Your task to perform on an android device: turn on improve location accuracy Image 0: 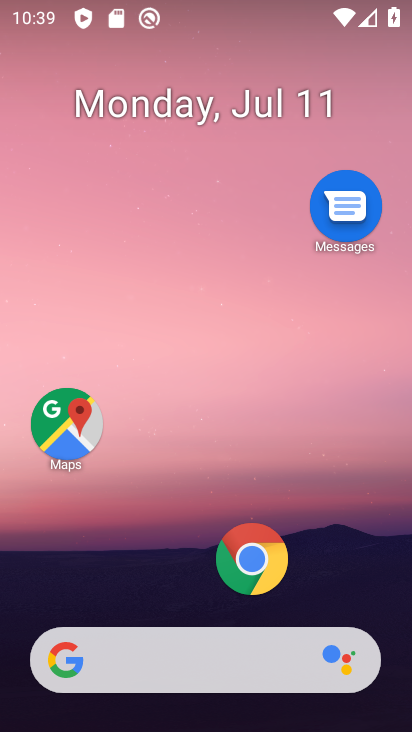
Step 0: drag from (361, 579) to (376, 120)
Your task to perform on an android device: turn on improve location accuracy Image 1: 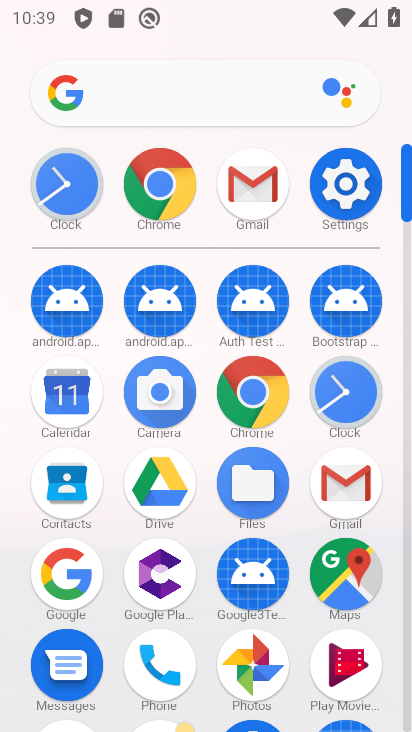
Step 1: click (356, 192)
Your task to perform on an android device: turn on improve location accuracy Image 2: 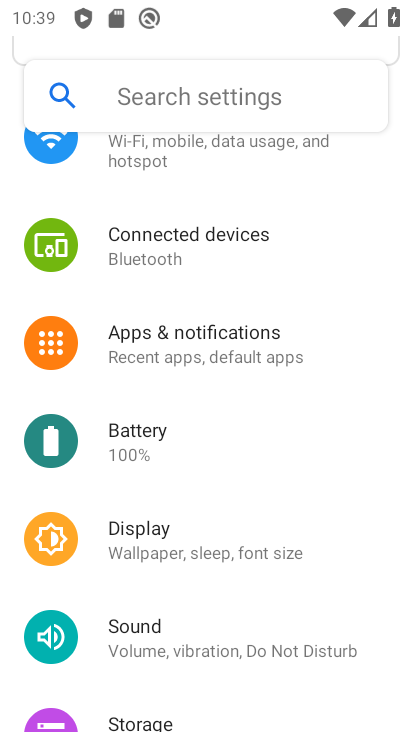
Step 2: drag from (347, 464) to (363, 279)
Your task to perform on an android device: turn on improve location accuracy Image 3: 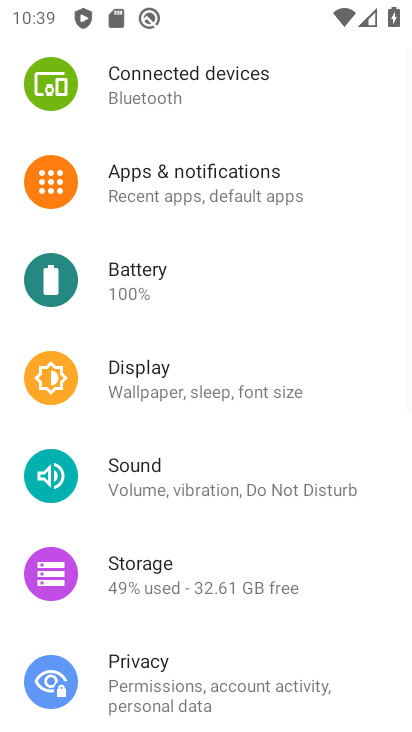
Step 3: drag from (357, 433) to (354, 299)
Your task to perform on an android device: turn on improve location accuracy Image 4: 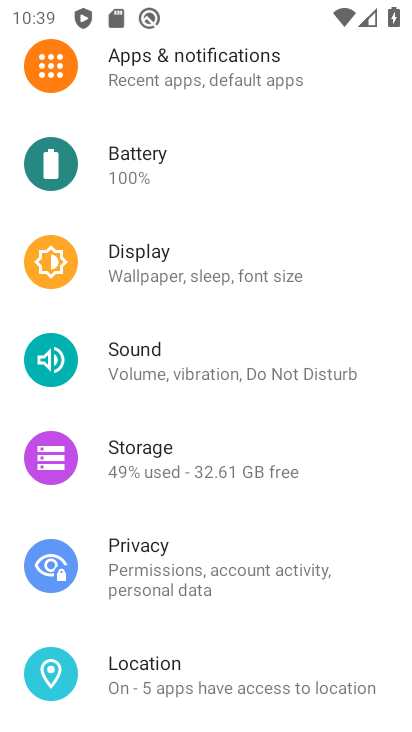
Step 4: drag from (345, 492) to (351, 346)
Your task to perform on an android device: turn on improve location accuracy Image 5: 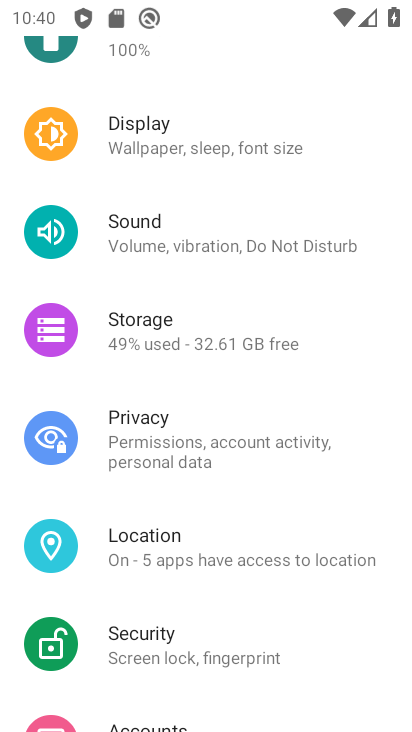
Step 5: drag from (359, 487) to (354, 332)
Your task to perform on an android device: turn on improve location accuracy Image 6: 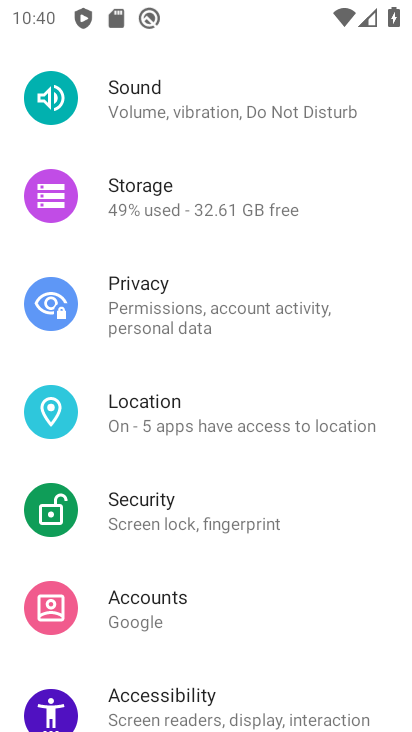
Step 6: drag from (342, 513) to (340, 312)
Your task to perform on an android device: turn on improve location accuracy Image 7: 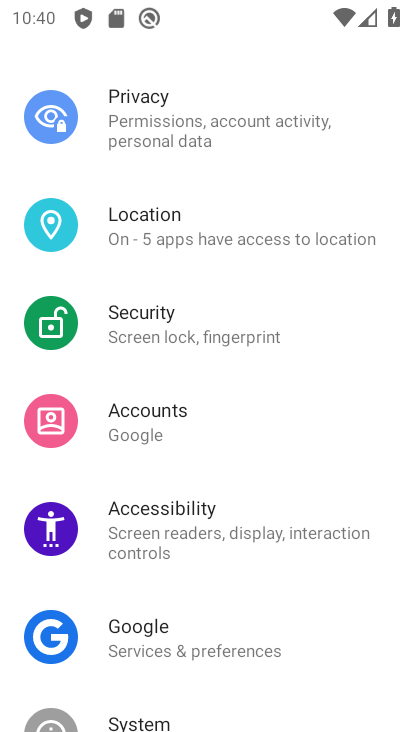
Step 7: drag from (333, 462) to (340, 305)
Your task to perform on an android device: turn on improve location accuracy Image 8: 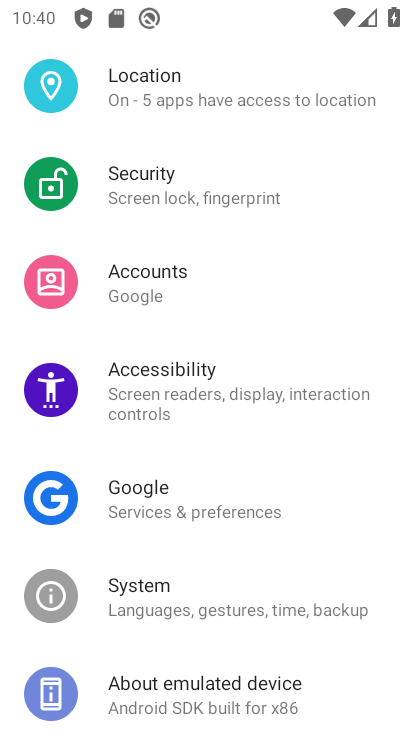
Step 8: drag from (349, 477) to (345, 367)
Your task to perform on an android device: turn on improve location accuracy Image 9: 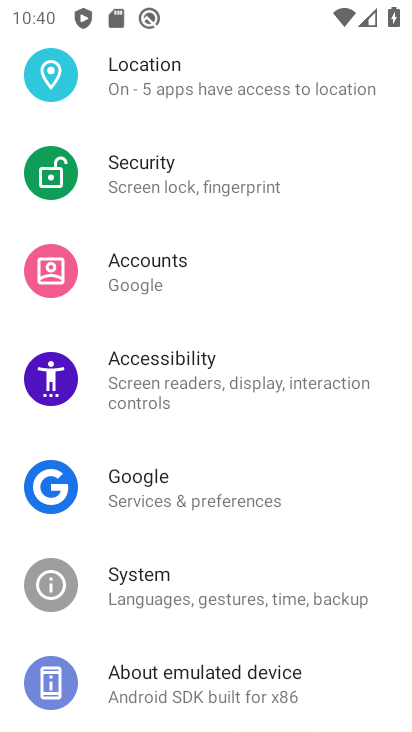
Step 9: drag from (339, 304) to (344, 469)
Your task to perform on an android device: turn on improve location accuracy Image 10: 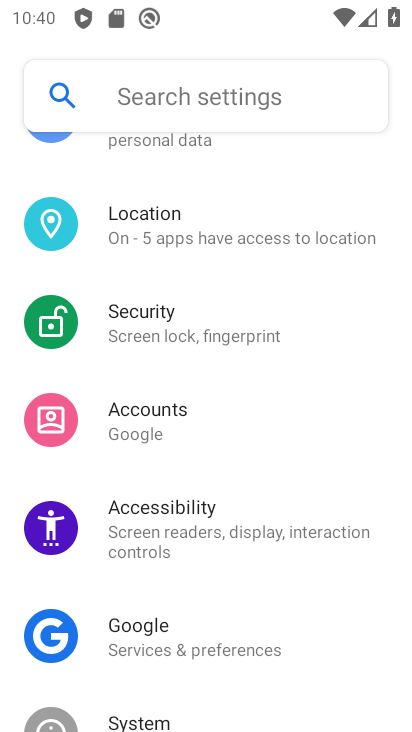
Step 10: drag from (335, 314) to (332, 491)
Your task to perform on an android device: turn on improve location accuracy Image 11: 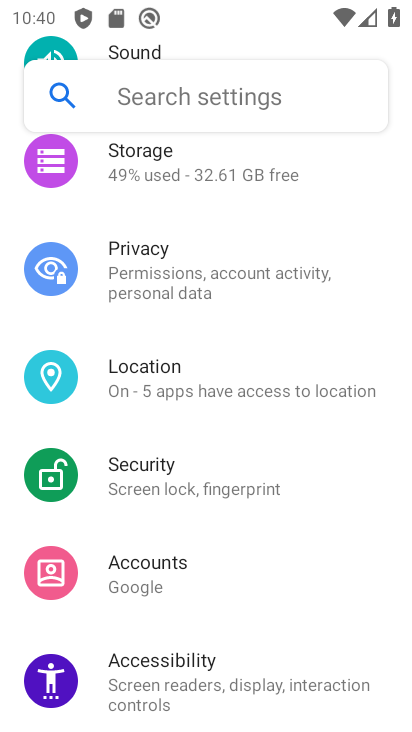
Step 11: drag from (342, 312) to (332, 431)
Your task to perform on an android device: turn on improve location accuracy Image 12: 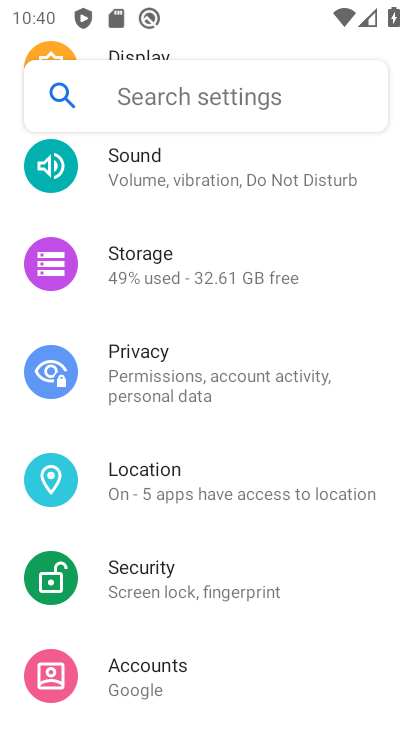
Step 12: click (324, 481)
Your task to perform on an android device: turn on improve location accuracy Image 13: 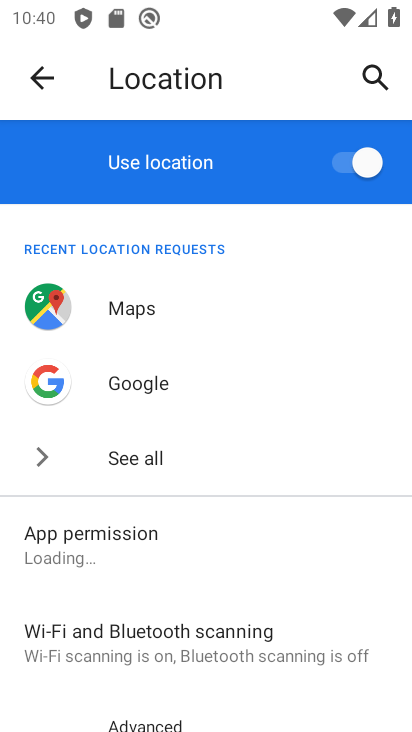
Step 13: drag from (321, 523) to (325, 436)
Your task to perform on an android device: turn on improve location accuracy Image 14: 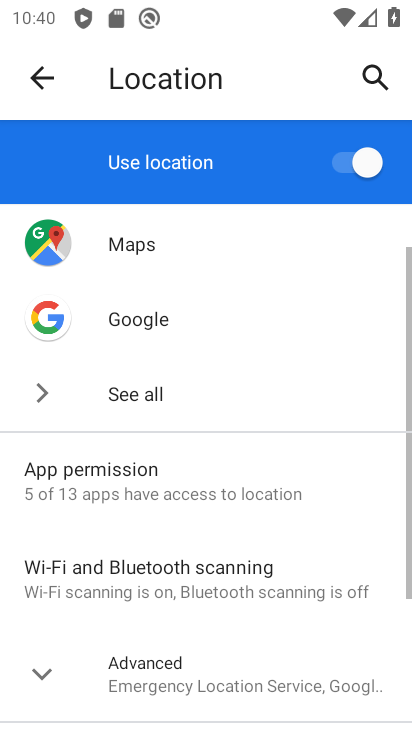
Step 14: drag from (324, 516) to (323, 394)
Your task to perform on an android device: turn on improve location accuracy Image 15: 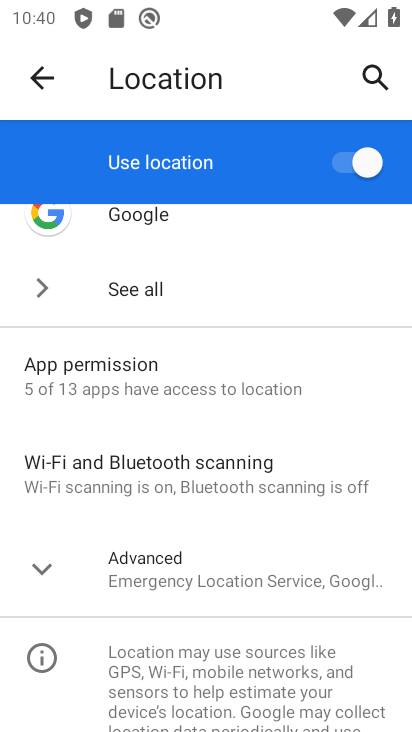
Step 15: click (318, 574)
Your task to perform on an android device: turn on improve location accuracy Image 16: 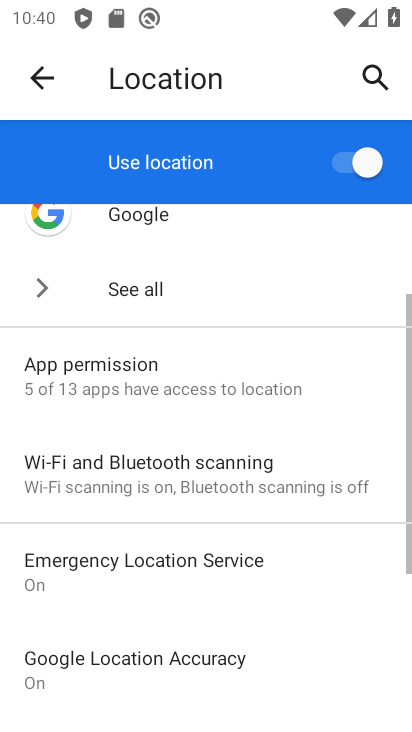
Step 16: drag from (319, 580) to (315, 461)
Your task to perform on an android device: turn on improve location accuracy Image 17: 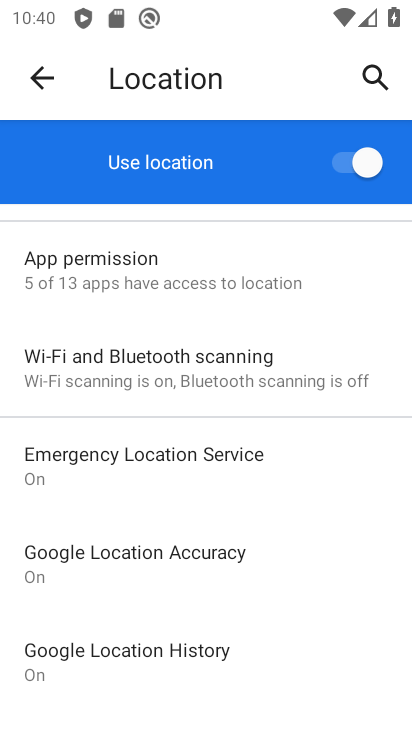
Step 17: click (295, 562)
Your task to perform on an android device: turn on improve location accuracy Image 18: 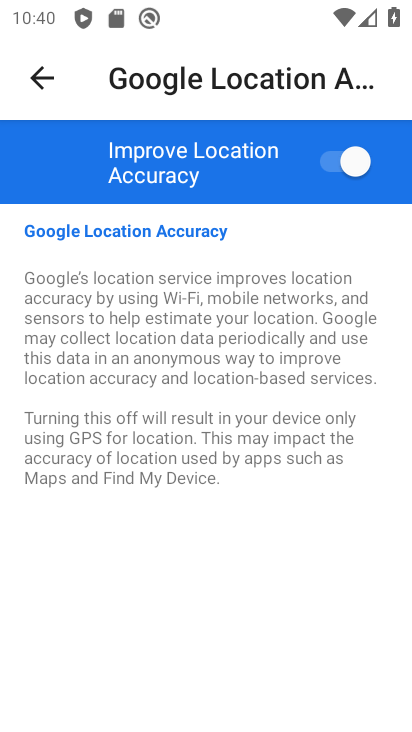
Step 18: task complete